Your task to perform on an android device: Go to wifi settings Image 0: 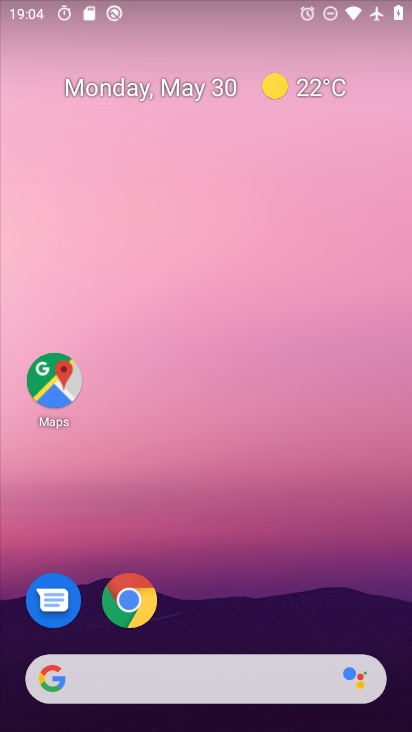
Step 0: press home button
Your task to perform on an android device: Go to wifi settings Image 1: 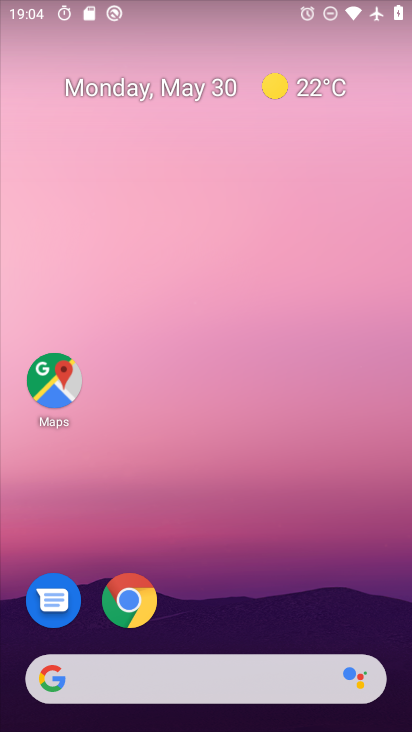
Step 1: drag from (254, 627) to (263, 142)
Your task to perform on an android device: Go to wifi settings Image 2: 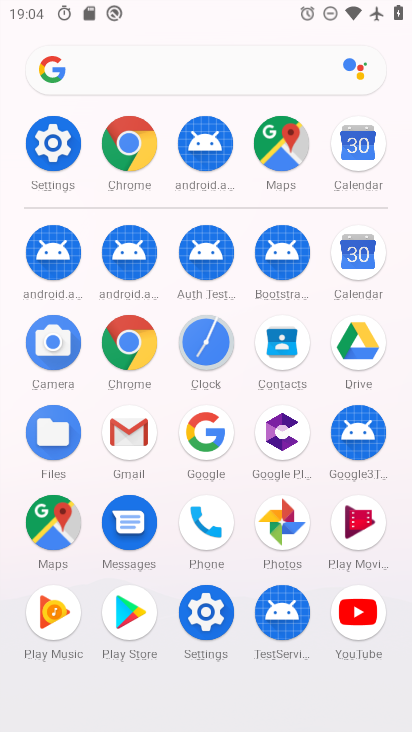
Step 2: click (62, 147)
Your task to perform on an android device: Go to wifi settings Image 3: 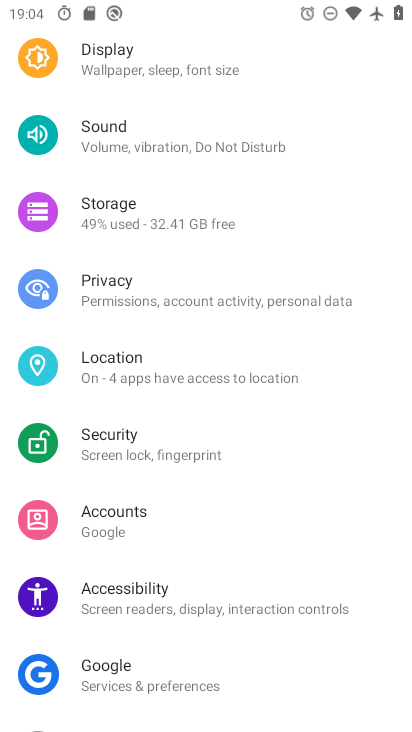
Step 3: drag from (289, 99) to (285, 484)
Your task to perform on an android device: Go to wifi settings Image 4: 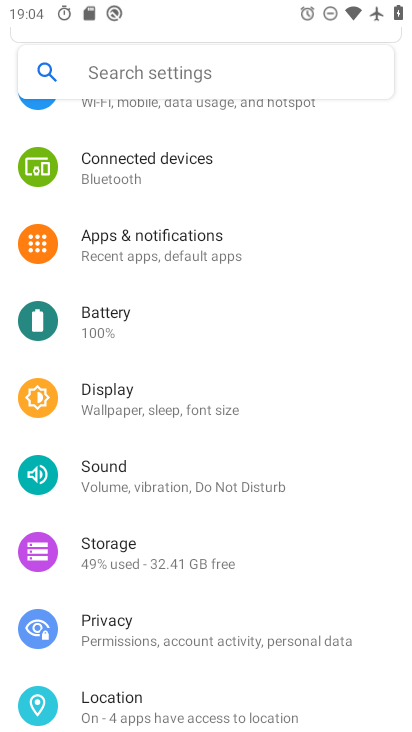
Step 4: click (135, 103)
Your task to perform on an android device: Go to wifi settings Image 5: 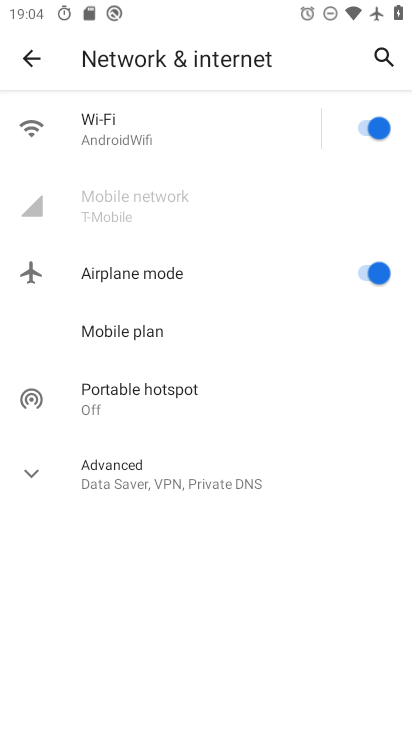
Step 5: click (109, 146)
Your task to perform on an android device: Go to wifi settings Image 6: 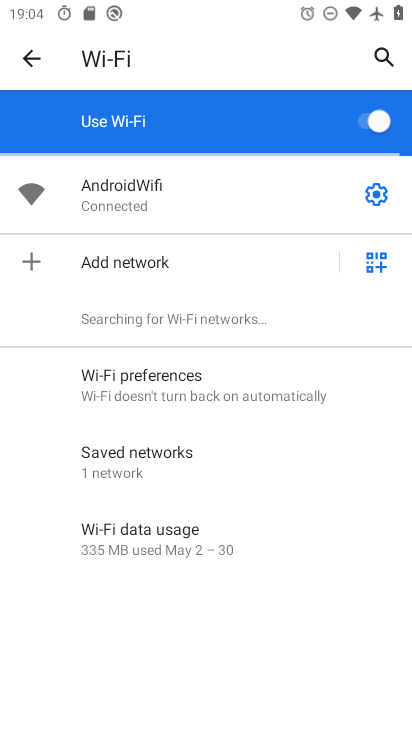
Step 6: task complete